Your task to perform on an android device: Show me popular games on the Play Store Image 0: 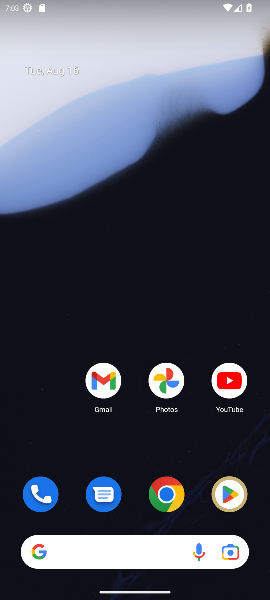
Step 0: drag from (60, 389) to (64, 168)
Your task to perform on an android device: Show me popular games on the Play Store Image 1: 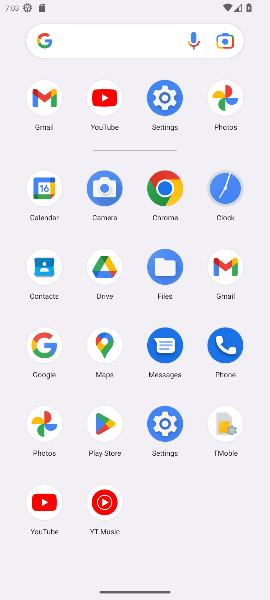
Step 1: task complete